Your task to perform on an android device: Open maps Image 0: 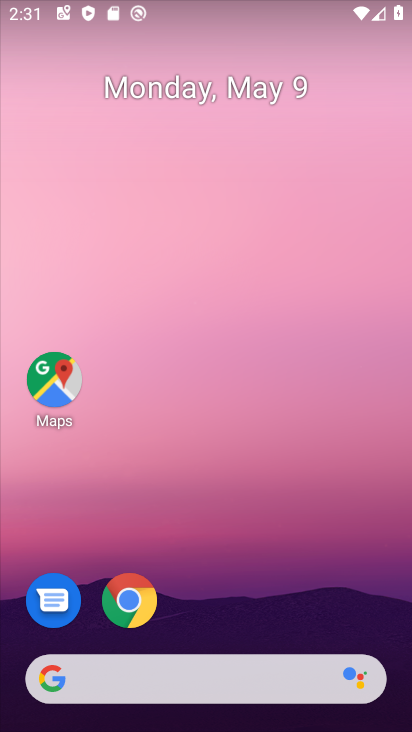
Step 0: click (52, 383)
Your task to perform on an android device: Open maps Image 1: 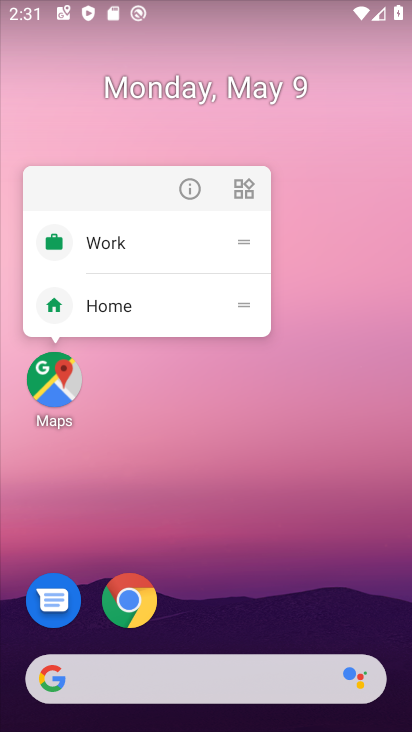
Step 1: click (49, 381)
Your task to perform on an android device: Open maps Image 2: 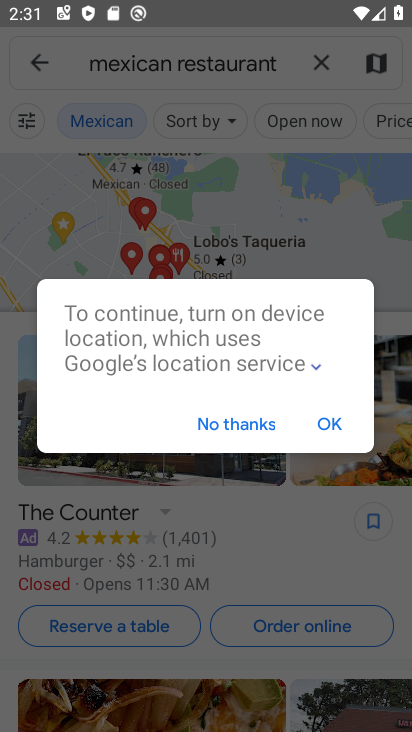
Step 2: task complete